Your task to perform on an android device: turn off translation in the chrome app Image 0: 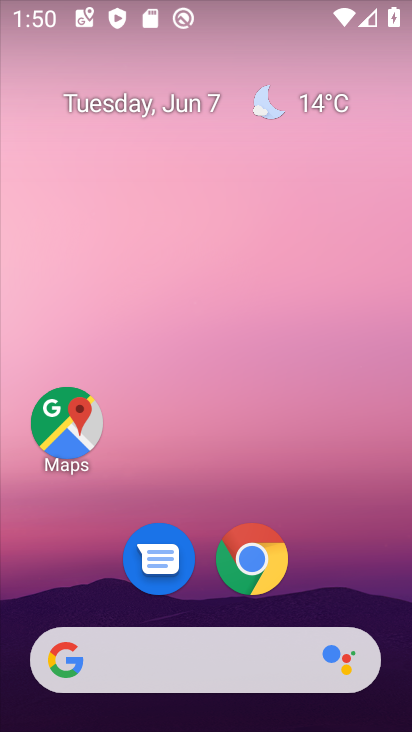
Step 0: drag from (312, 565) to (217, 27)
Your task to perform on an android device: turn off translation in the chrome app Image 1: 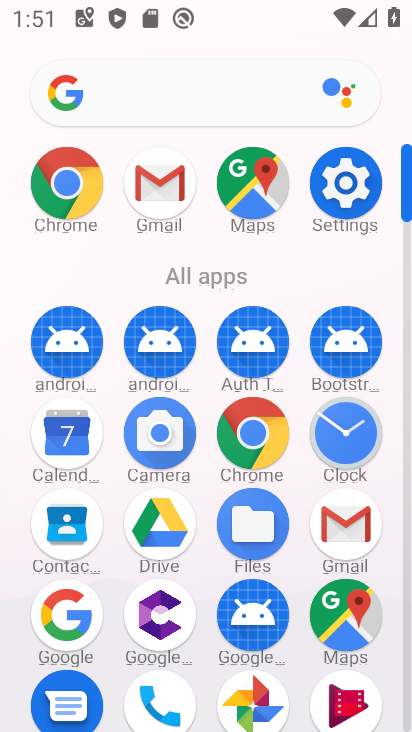
Step 1: drag from (12, 561) to (11, 257)
Your task to perform on an android device: turn off translation in the chrome app Image 2: 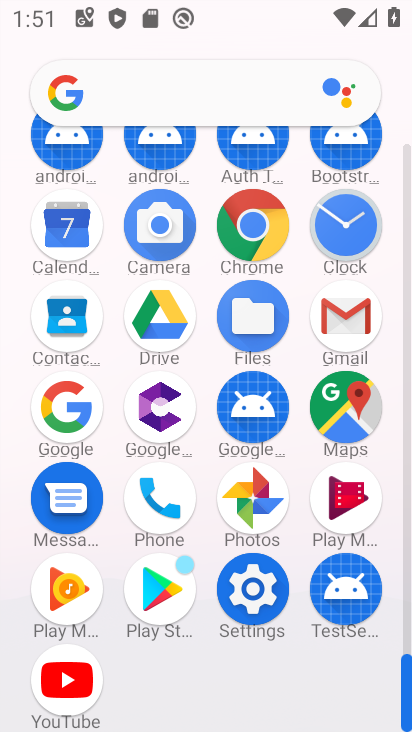
Step 2: click (245, 220)
Your task to perform on an android device: turn off translation in the chrome app Image 3: 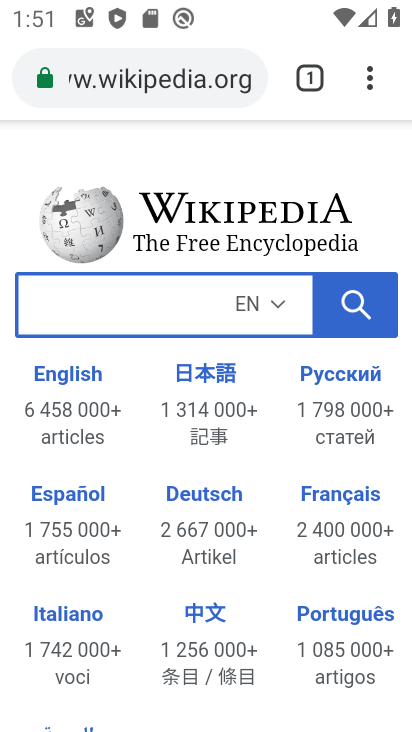
Step 3: drag from (365, 62) to (187, 594)
Your task to perform on an android device: turn off translation in the chrome app Image 4: 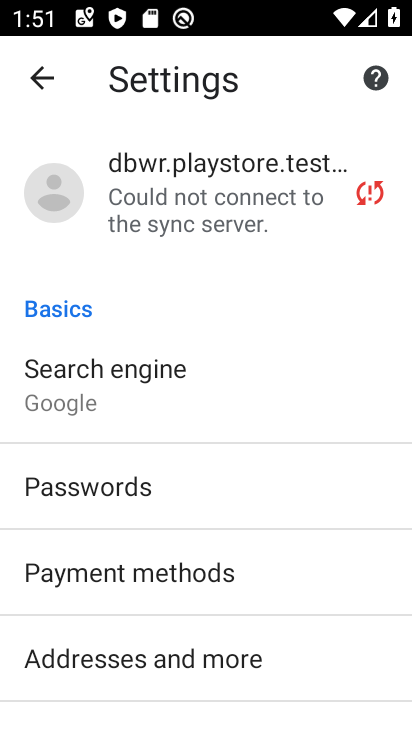
Step 4: drag from (235, 548) to (259, 218)
Your task to perform on an android device: turn off translation in the chrome app Image 5: 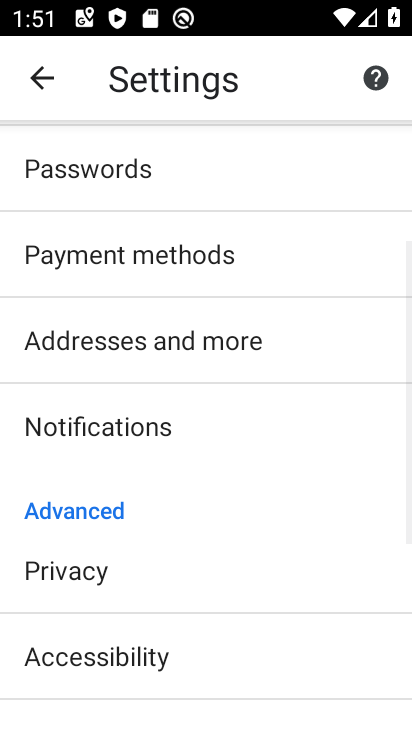
Step 5: drag from (262, 574) to (304, 177)
Your task to perform on an android device: turn off translation in the chrome app Image 6: 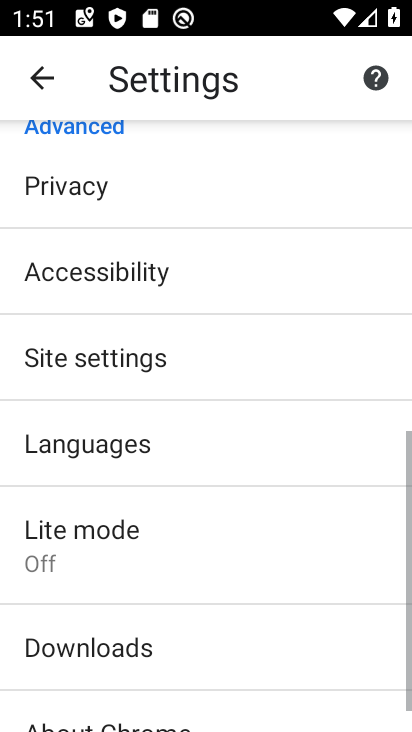
Step 6: click (110, 440)
Your task to perform on an android device: turn off translation in the chrome app Image 7: 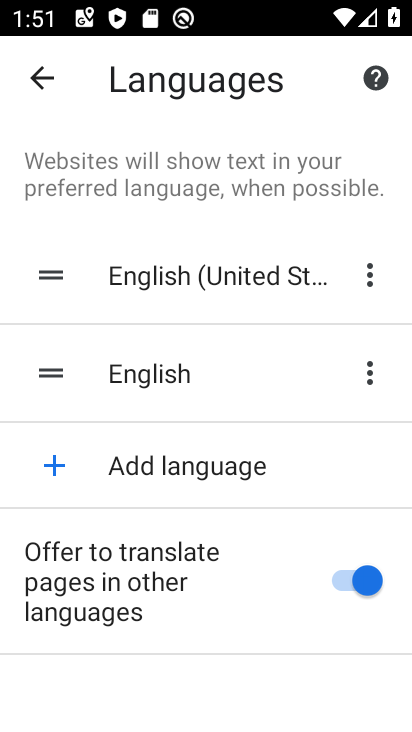
Step 7: click (345, 587)
Your task to perform on an android device: turn off translation in the chrome app Image 8: 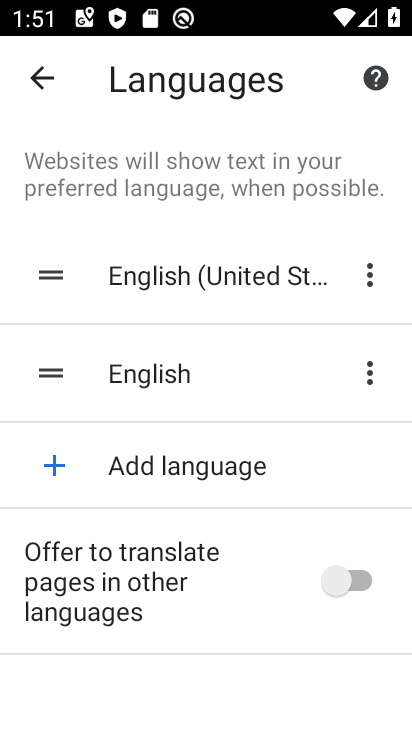
Step 8: task complete